Your task to perform on an android device: change the upload size in google photos Image 0: 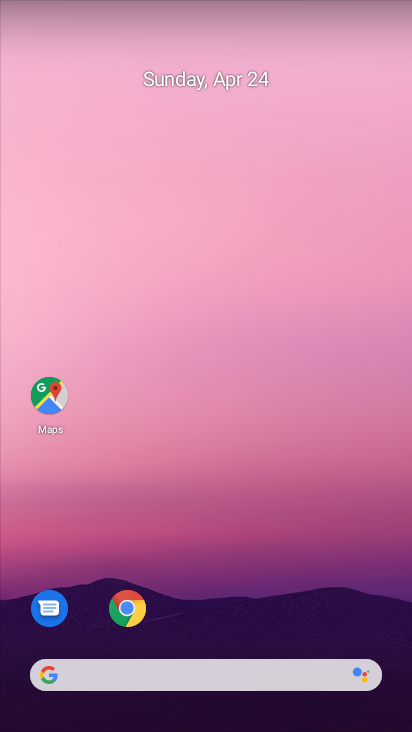
Step 0: drag from (289, 617) to (319, 67)
Your task to perform on an android device: change the upload size in google photos Image 1: 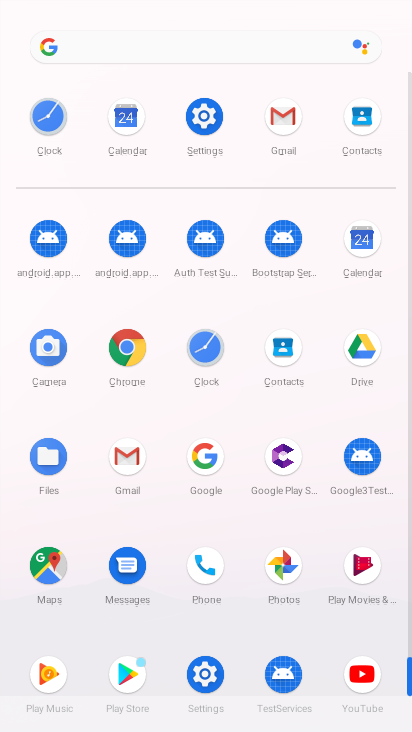
Step 1: click (281, 568)
Your task to perform on an android device: change the upload size in google photos Image 2: 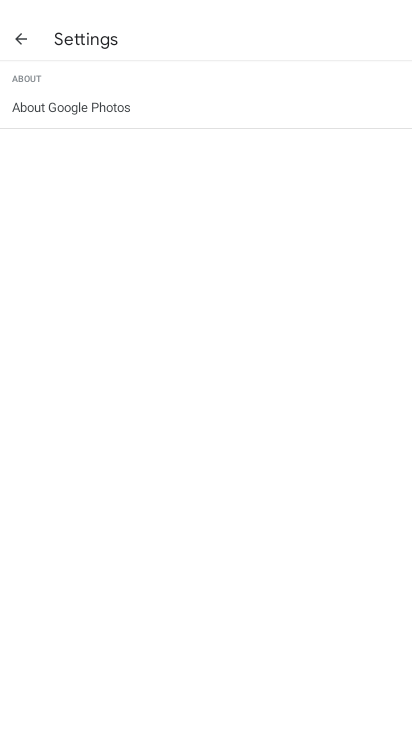
Step 2: click (21, 38)
Your task to perform on an android device: change the upload size in google photos Image 3: 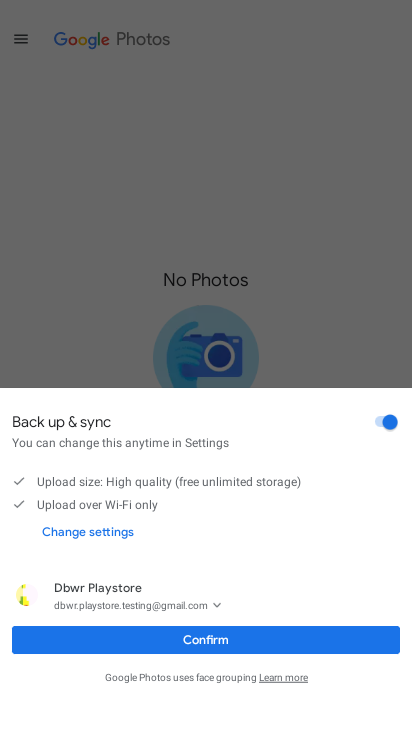
Step 3: click (280, 640)
Your task to perform on an android device: change the upload size in google photos Image 4: 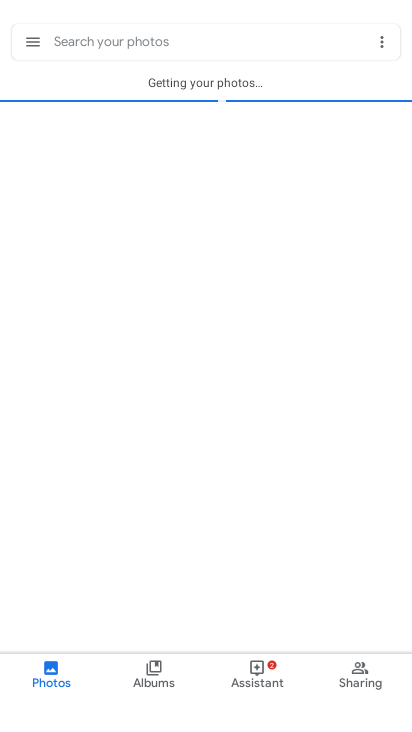
Step 4: click (32, 40)
Your task to perform on an android device: change the upload size in google photos Image 5: 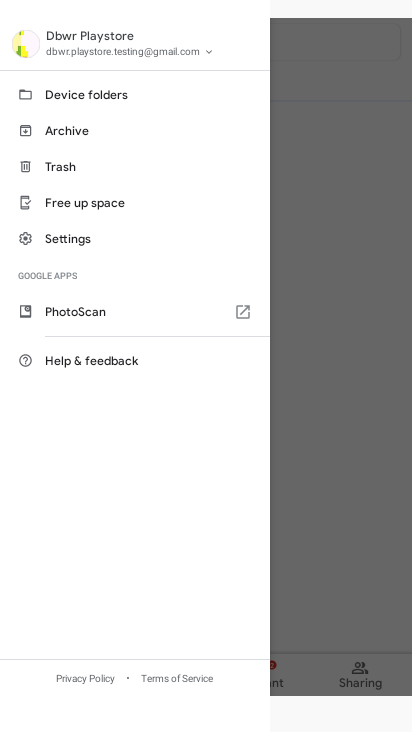
Step 5: click (81, 233)
Your task to perform on an android device: change the upload size in google photos Image 6: 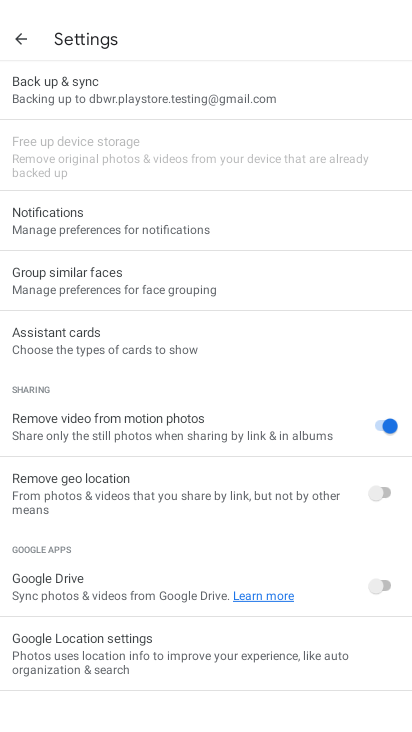
Step 6: click (121, 81)
Your task to perform on an android device: change the upload size in google photos Image 7: 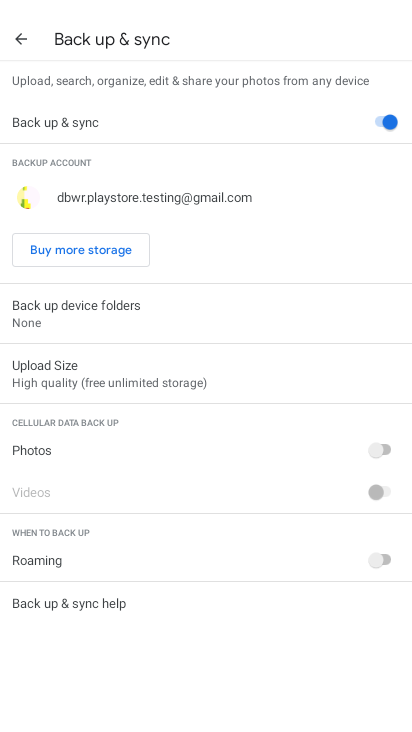
Step 7: click (112, 358)
Your task to perform on an android device: change the upload size in google photos Image 8: 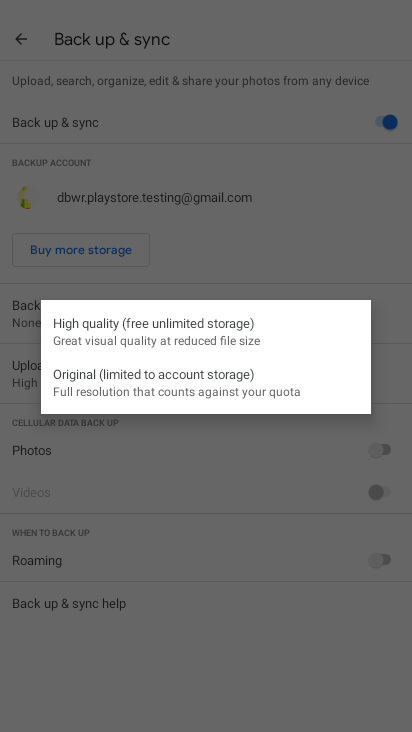
Step 8: click (156, 379)
Your task to perform on an android device: change the upload size in google photos Image 9: 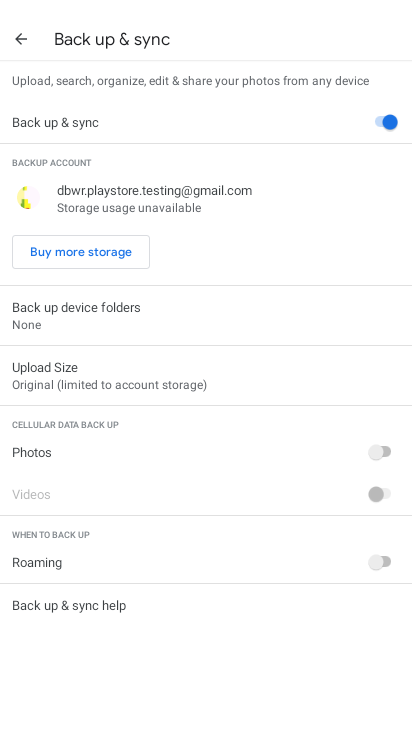
Step 9: task complete